Your task to perform on an android device: Go to Maps Image 0: 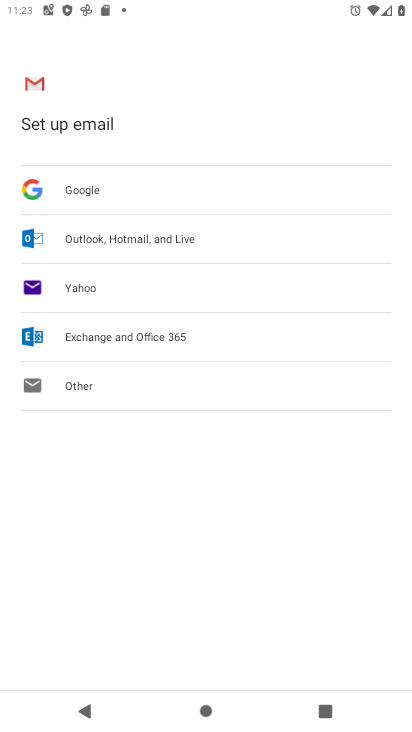
Step 0: press home button
Your task to perform on an android device: Go to Maps Image 1: 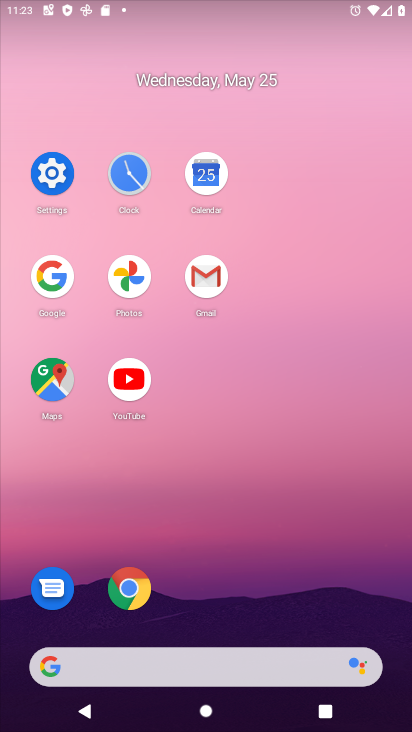
Step 1: click (56, 391)
Your task to perform on an android device: Go to Maps Image 2: 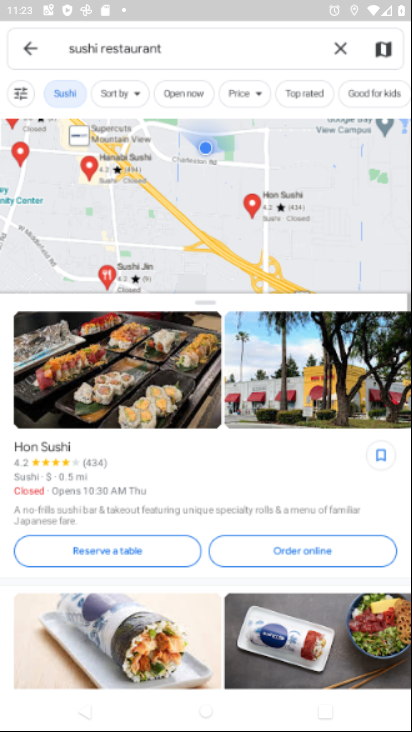
Step 2: task complete